Your task to perform on an android device: turn vacation reply on in the gmail app Image 0: 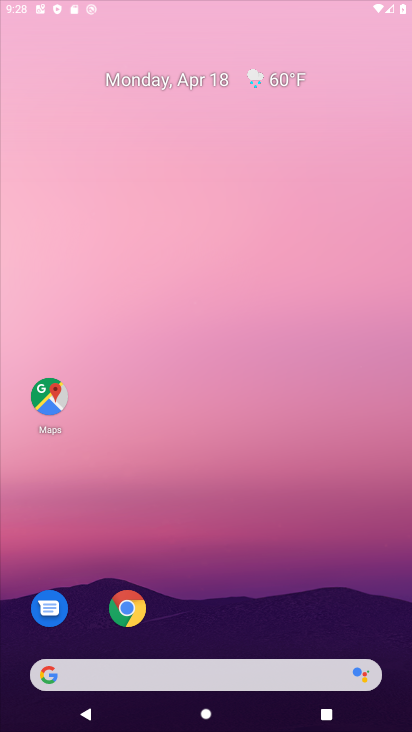
Step 0: drag from (403, 356) to (179, 5)
Your task to perform on an android device: turn vacation reply on in the gmail app Image 1: 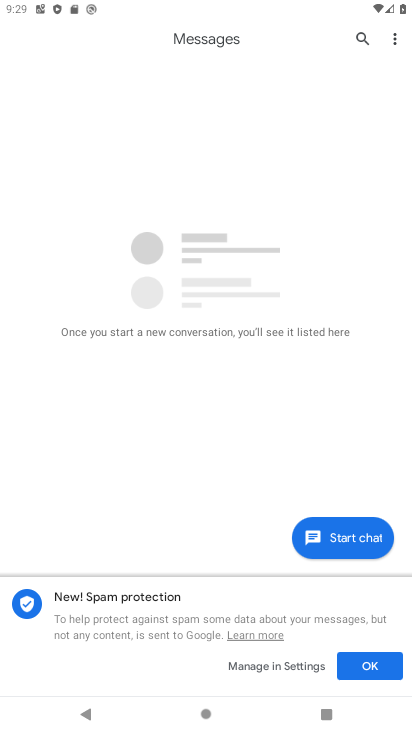
Step 1: drag from (254, 477) to (264, 416)
Your task to perform on an android device: turn vacation reply on in the gmail app Image 2: 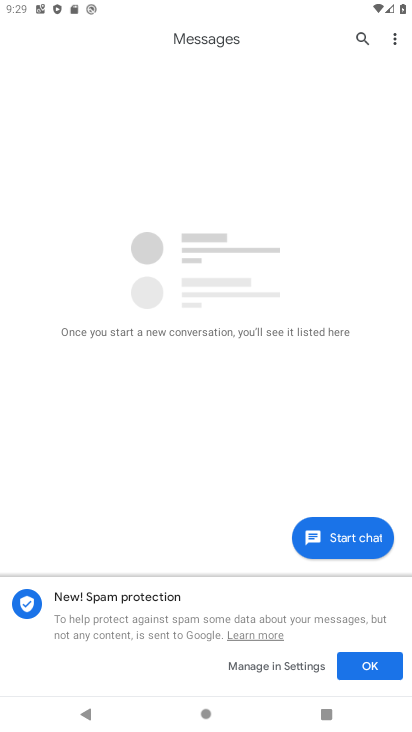
Step 2: press home button
Your task to perform on an android device: turn vacation reply on in the gmail app Image 3: 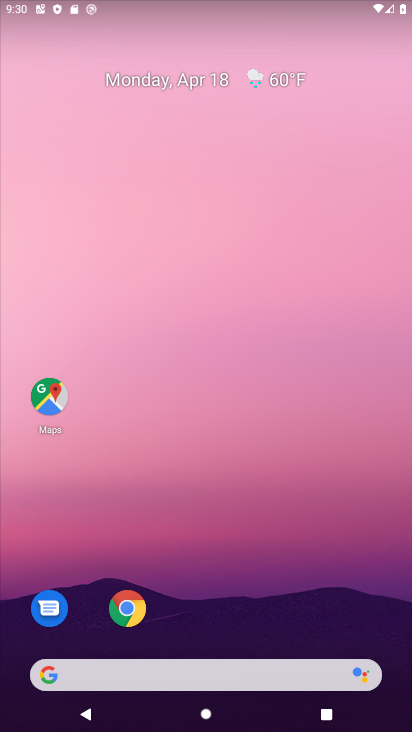
Step 3: drag from (202, 632) to (222, 259)
Your task to perform on an android device: turn vacation reply on in the gmail app Image 4: 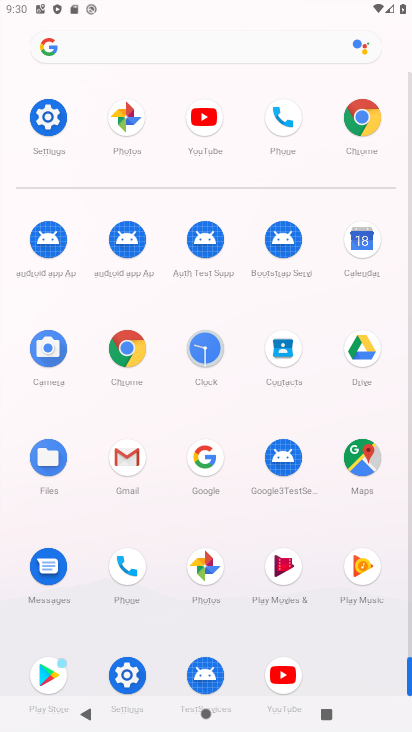
Step 4: click (48, 131)
Your task to perform on an android device: turn vacation reply on in the gmail app Image 5: 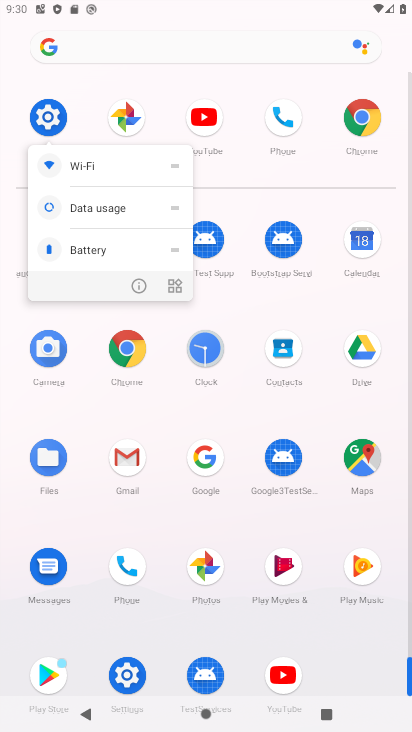
Step 5: click (134, 293)
Your task to perform on an android device: turn vacation reply on in the gmail app Image 6: 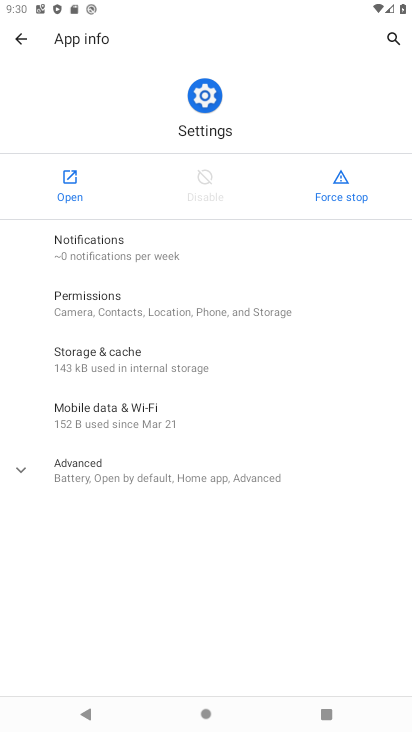
Step 6: click (95, 710)
Your task to perform on an android device: turn vacation reply on in the gmail app Image 7: 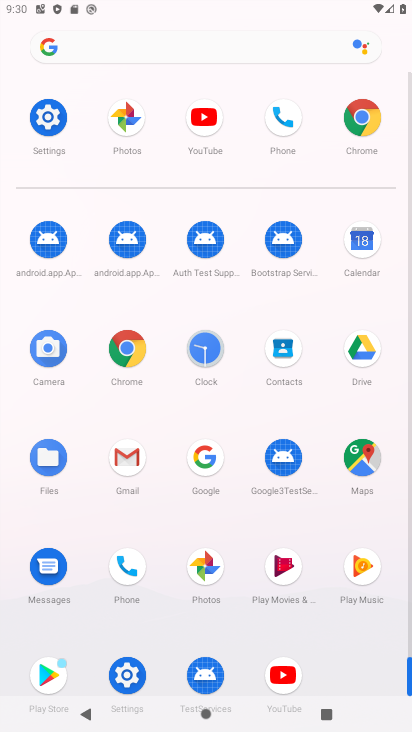
Step 7: click (120, 472)
Your task to perform on an android device: turn vacation reply on in the gmail app Image 8: 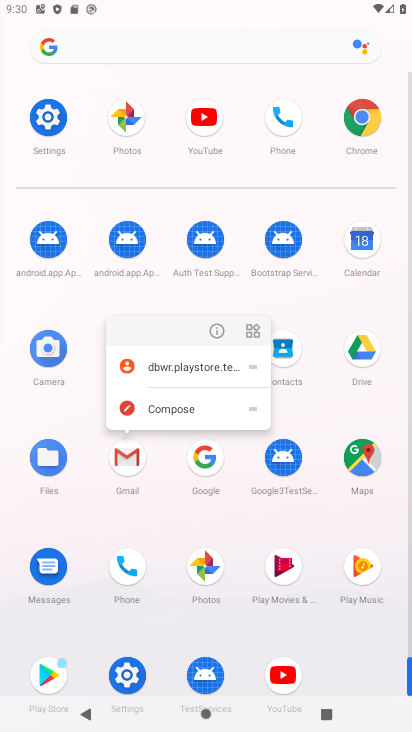
Step 8: click (209, 332)
Your task to perform on an android device: turn vacation reply on in the gmail app Image 9: 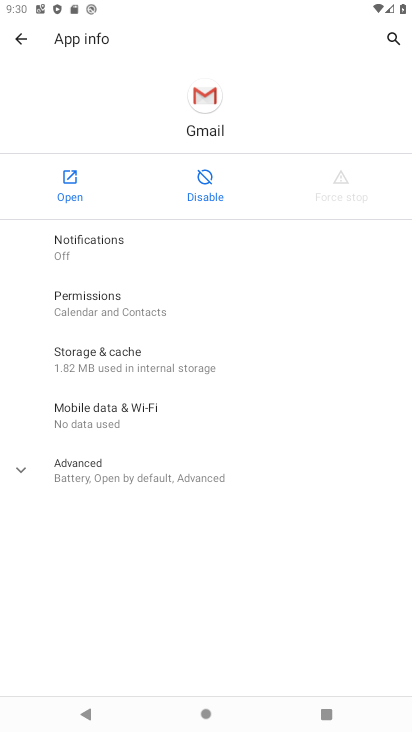
Step 9: click (70, 197)
Your task to perform on an android device: turn vacation reply on in the gmail app Image 10: 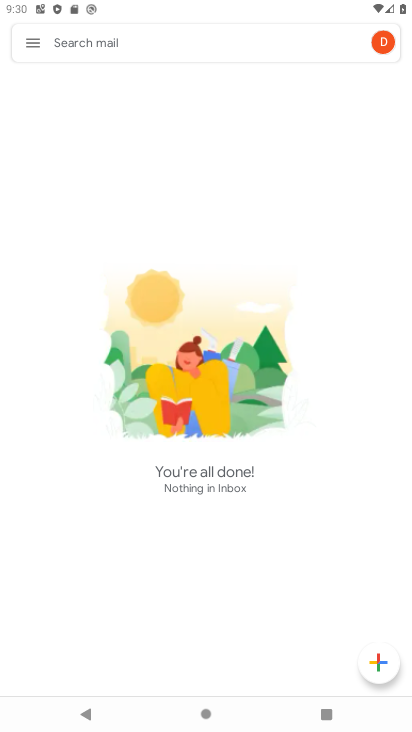
Step 10: drag from (181, 609) to (242, 138)
Your task to perform on an android device: turn vacation reply on in the gmail app Image 11: 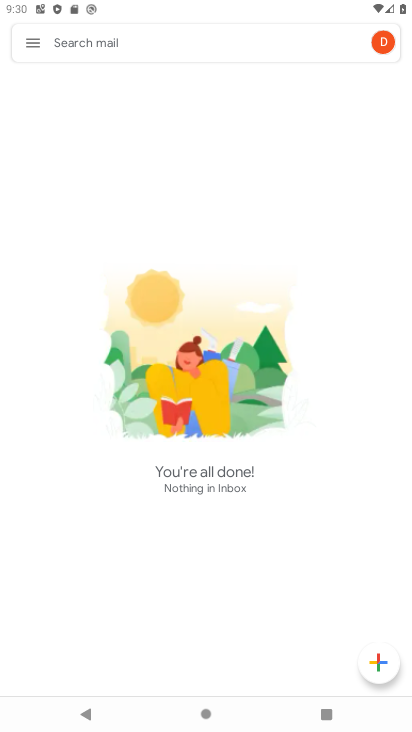
Step 11: click (28, 42)
Your task to perform on an android device: turn vacation reply on in the gmail app Image 12: 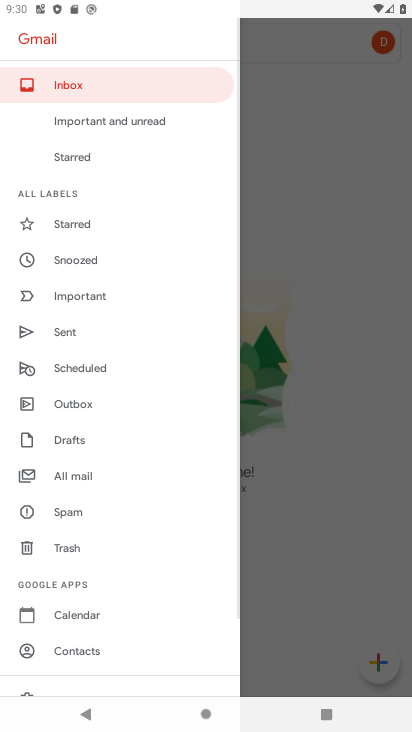
Step 12: drag from (149, 630) to (212, 225)
Your task to perform on an android device: turn vacation reply on in the gmail app Image 13: 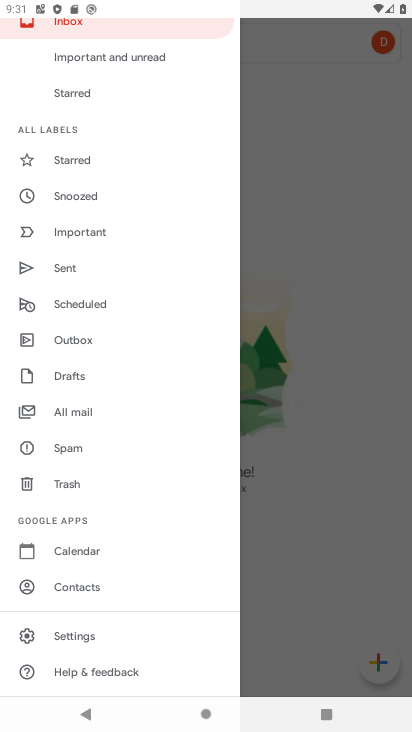
Step 13: click (110, 640)
Your task to perform on an android device: turn vacation reply on in the gmail app Image 14: 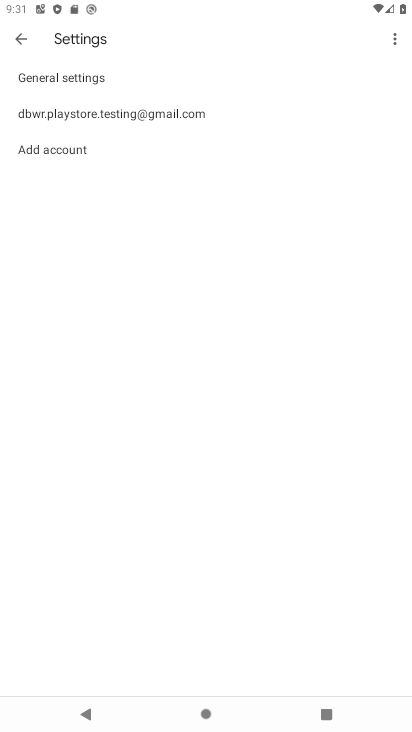
Step 14: click (138, 112)
Your task to perform on an android device: turn vacation reply on in the gmail app Image 15: 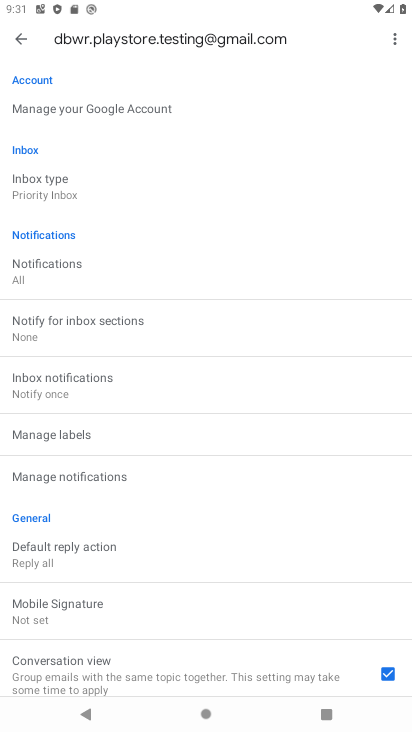
Step 15: drag from (168, 599) to (257, 192)
Your task to perform on an android device: turn vacation reply on in the gmail app Image 16: 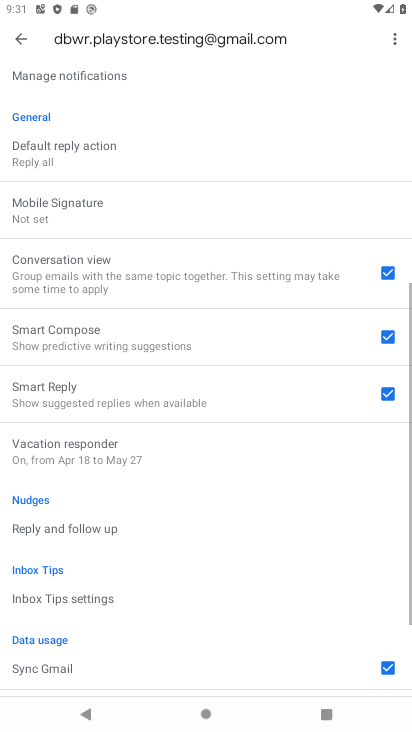
Step 16: click (117, 452)
Your task to perform on an android device: turn vacation reply on in the gmail app Image 17: 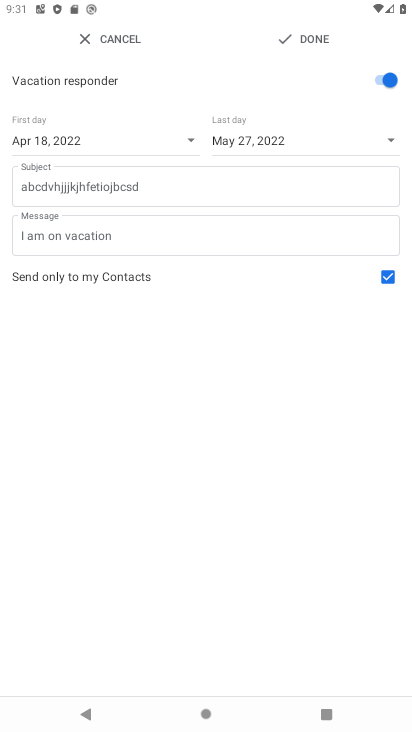
Step 17: click (322, 42)
Your task to perform on an android device: turn vacation reply on in the gmail app Image 18: 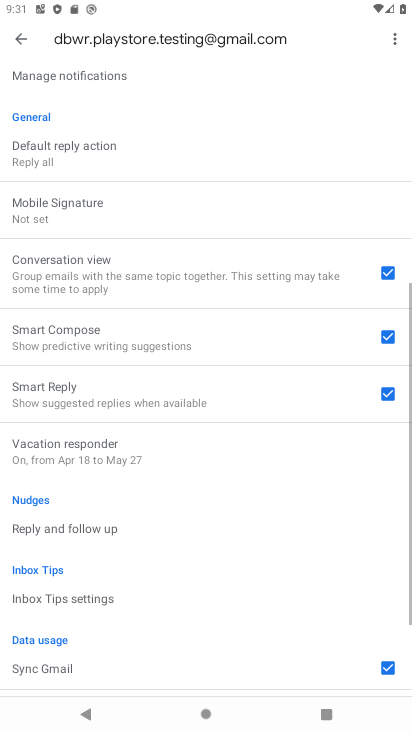
Step 18: task complete